Your task to perform on an android device: Open Google Chrome Image 0: 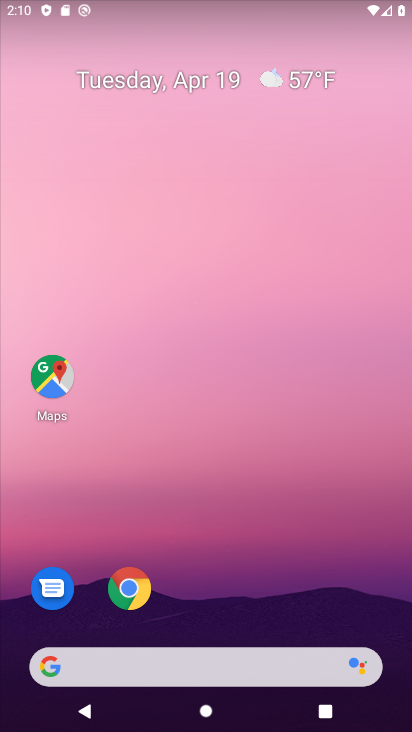
Step 0: click (131, 584)
Your task to perform on an android device: Open Google Chrome Image 1: 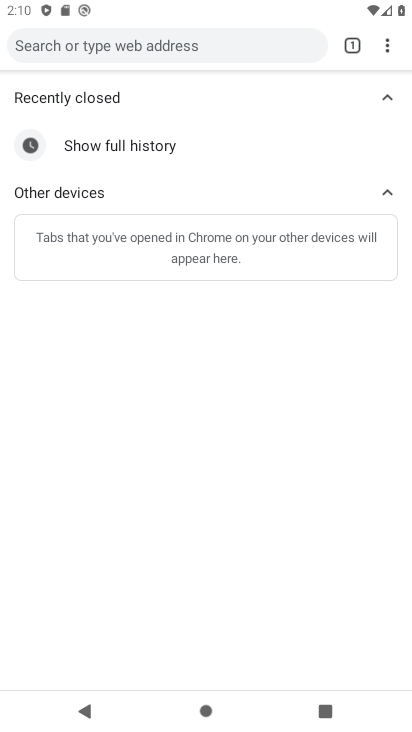
Step 1: task complete